Your task to perform on an android device: Open Google Chrome and open the bookmarks view Image 0: 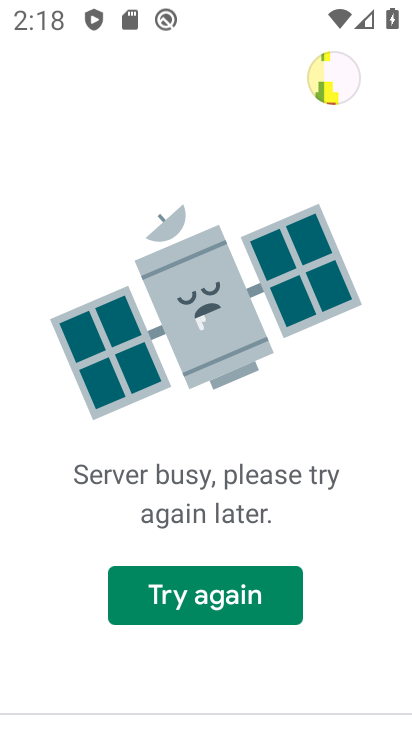
Step 0: press home button
Your task to perform on an android device: Open Google Chrome and open the bookmarks view Image 1: 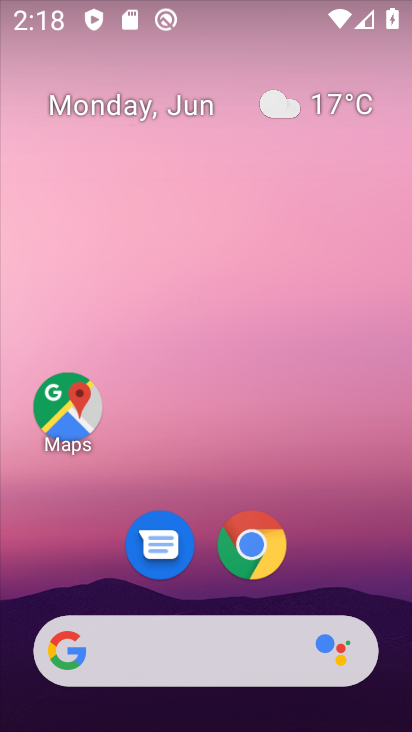
Step 1: drag from (371, 549) to (378, 140)
Your task to perform on an android device: Open Google Chrome and open the bookmarks view Image 2: 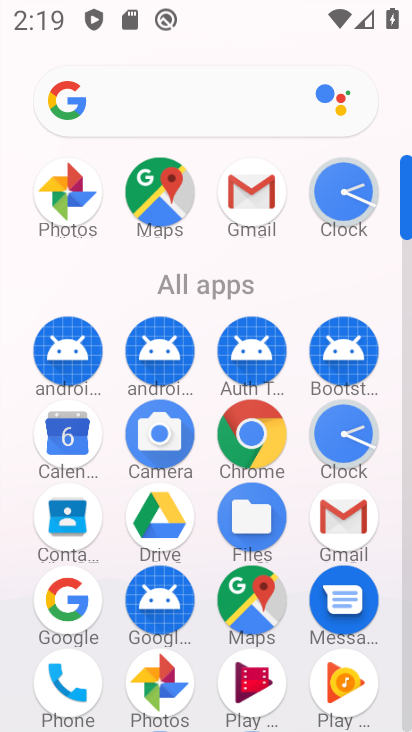
Step 2: click (240, 445)
Your task to perform on an android device: Open Google Chrome and open the bookmarks view Image 3: 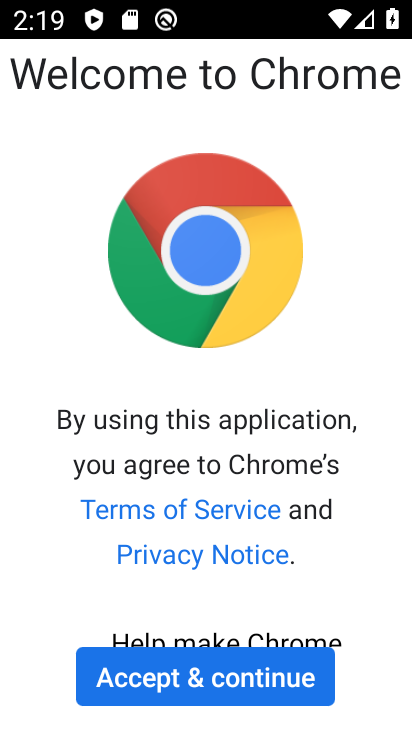
Step 3: click (228, 676)
Your task to perform on an android device: Open Google Chrome and open the bookmarks view Image 4: 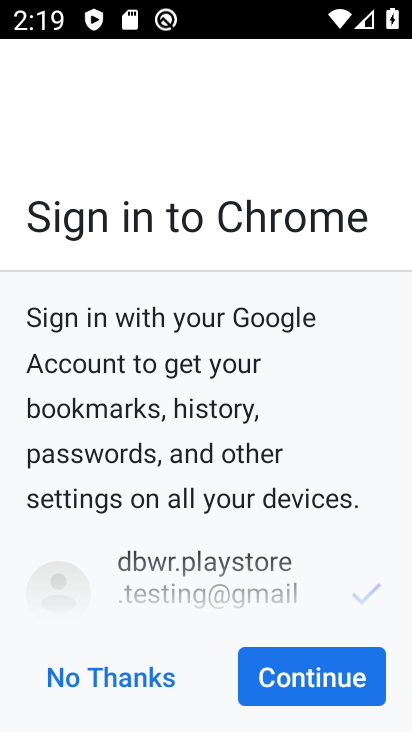
Step 4: click (313, 685)
Your task to perform on an android device: Open Google Chrome and open the bookmarks view Image 5: 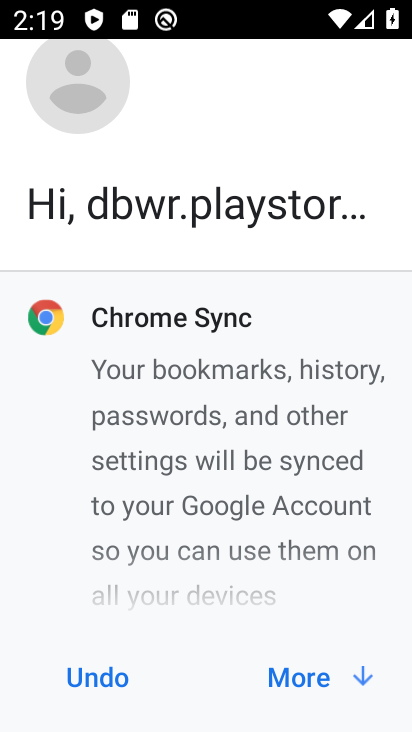
Step 5: click (313, 685)
Your task to perform on an android device: Open Google Chrome and open the bookmarks view Image 6: 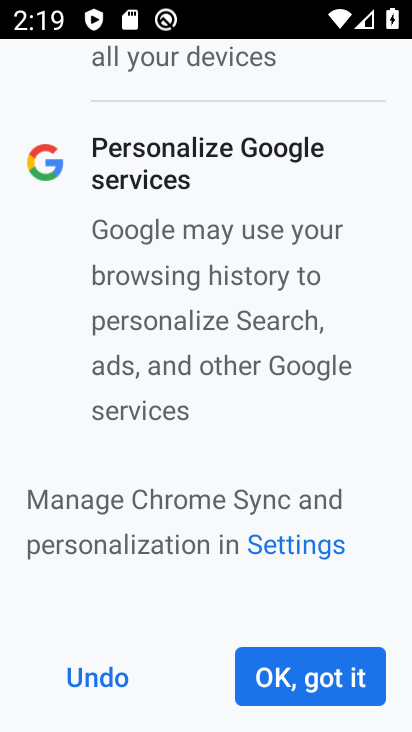
Step 6: click (313, 685)
Your task to perform on an android device: Open Google Chrome and open the bookmarks view Image 7: 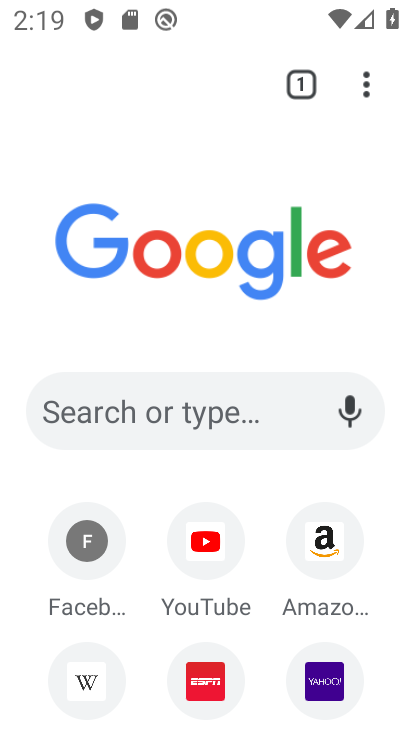
Step 7: task complete